Your task to perform on an android device: turn notification dots on Image 0: 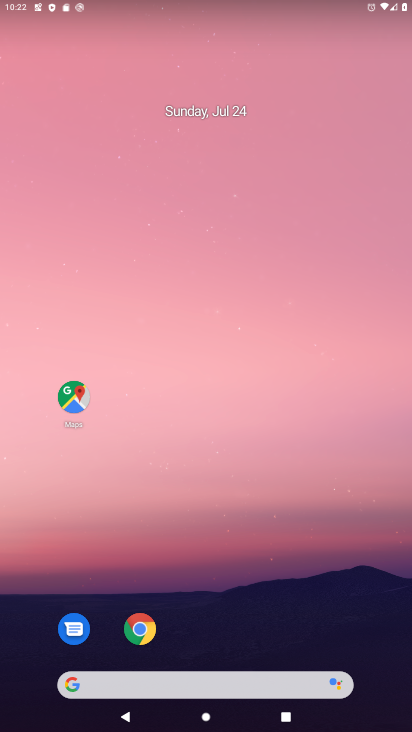
Step 0: drag from (213, 623) to (249, 217)
Your task to perform on an android device: turn notification dots on Image 1: 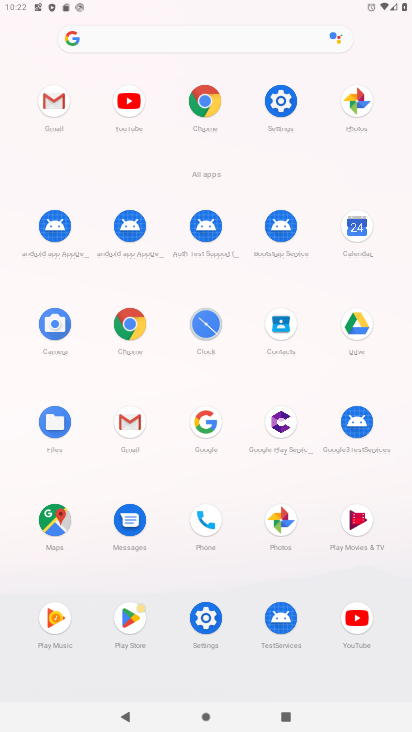
Step 1: click (200, 619)
Your task to perform on an android device: turn notification dots on Image 2: 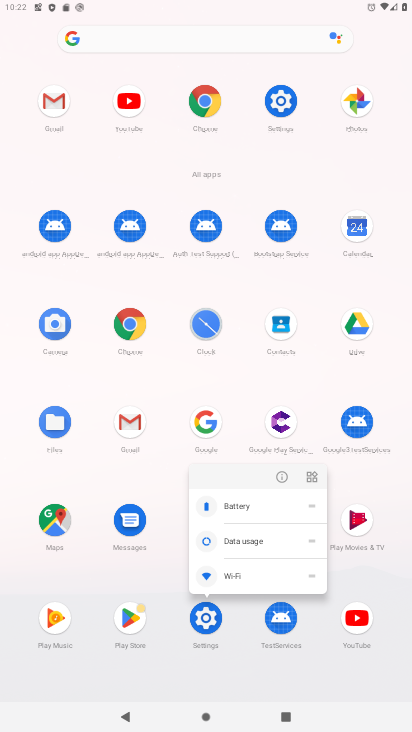
Step 2: click (278, 478)
Your task to perform on an android device: turn notification dots on Image 3: 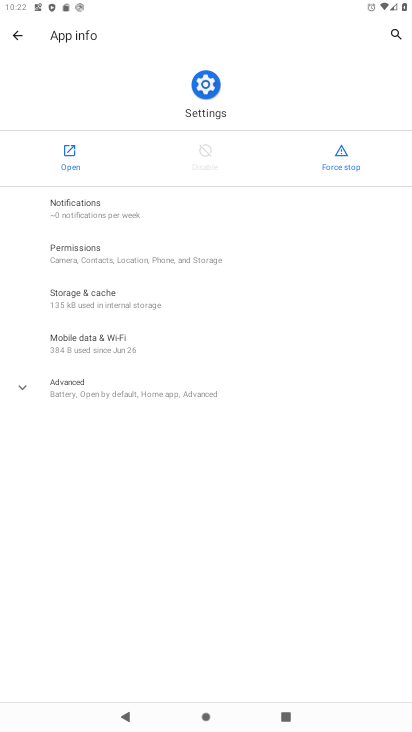
Step 3: click (68, 155)
Your task to perform on an android device: turn notification dots on Image 4: 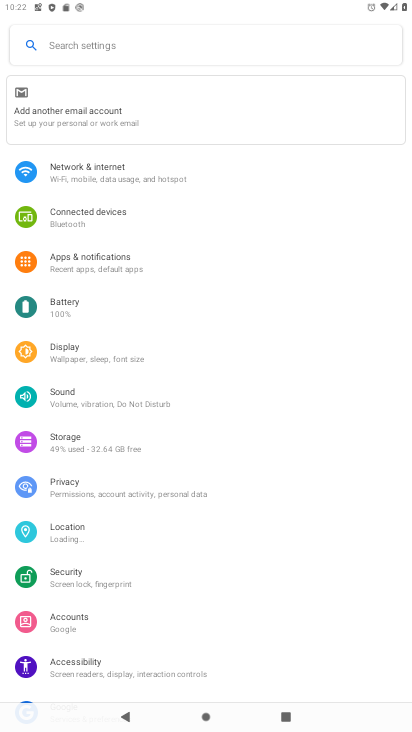
Step 4: click (136, 185)
Your task to perform on an android device: turn notification dots on Image 5: 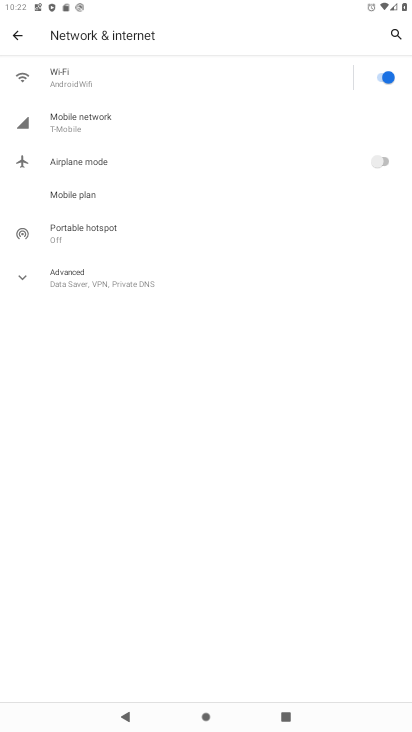
Step 5: click (93, 285)
Your task to perform on an android device: turn notification dots on Image 6: 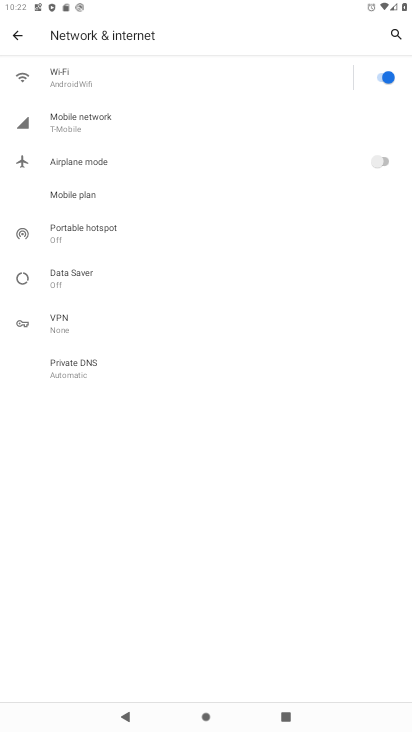
Step 6: click (8, 33)
Your task to perform on an android device: turn notification dots on Image 7: 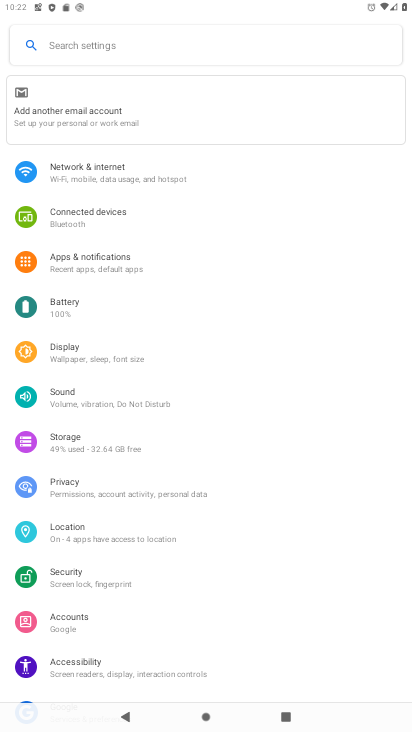
Step 7: click (151, 268)
Your task to perform on an android device: turn notification dots on Image 8: 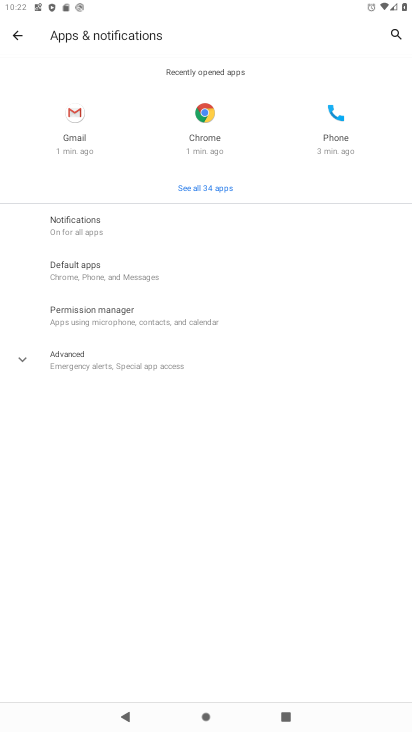
Step 8: click (107, 230)
Your task to perform on an android device: turn notification dots on Image 9: 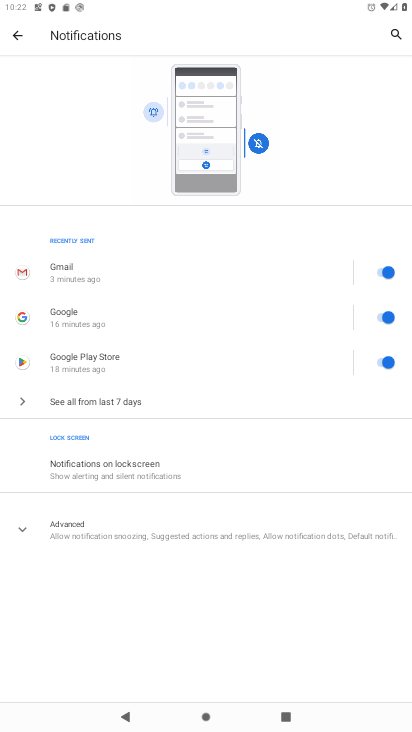
Step 9: click (94, 525)
Your task to perform on an android device: turn notification dots on Image 10: 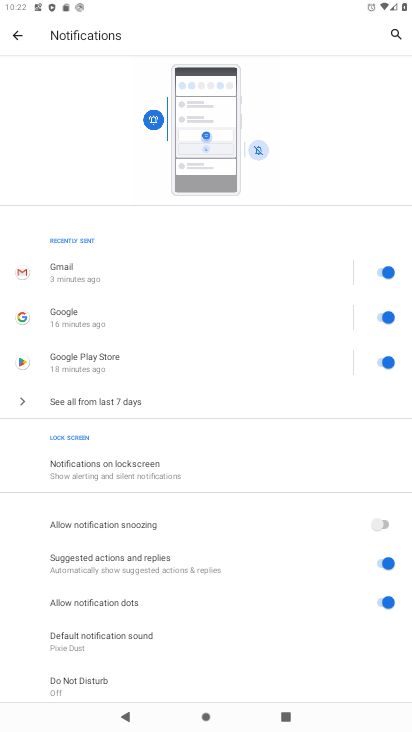
Step 10: task complete